Your task to perform on an android device: check battery use Image 0: 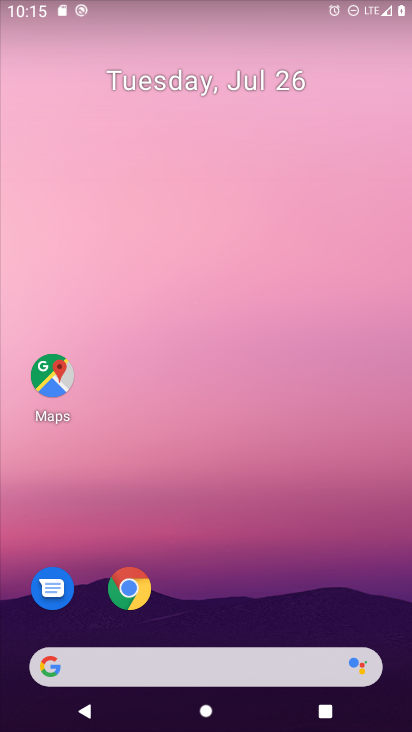
Step 0: drag from (203, 639) to (195, 116)
Your task to perform on an android device: check battery use Image 1: 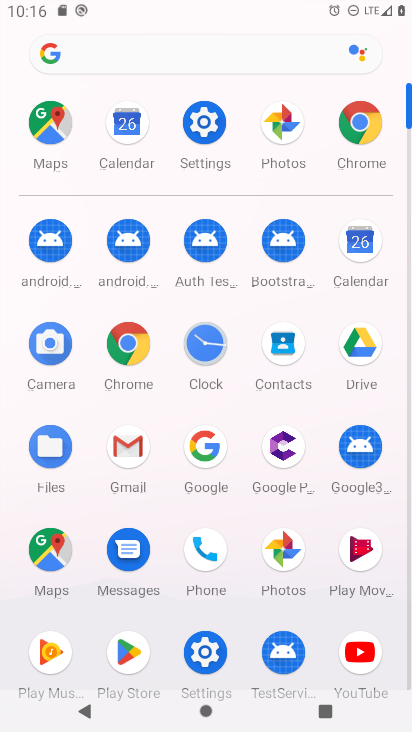
Step 1: click (203, 121)
Your task to perform on an android device: check battery use Image 2: 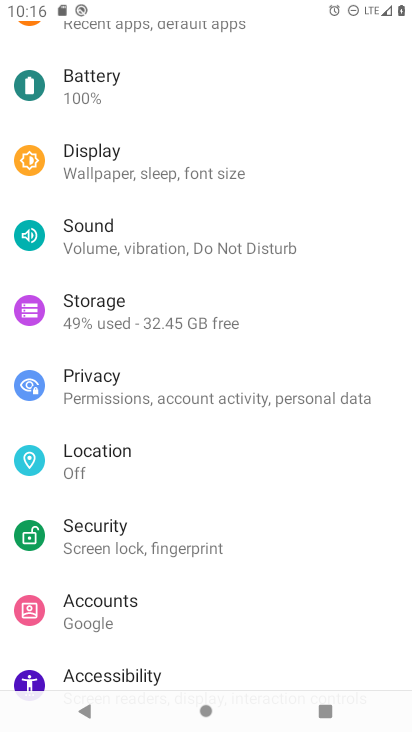
Step 2: click (160, 118)
Your task to perform on an android device: check battery use Image 3: 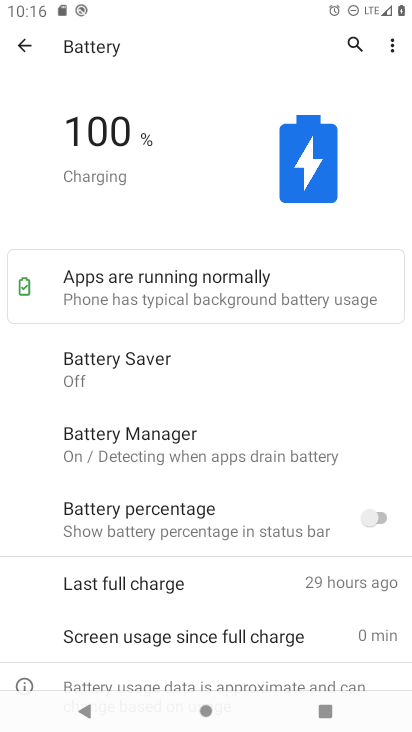
Step 3: task complete